Your task to perform on an android device: Open Reddit.com Image 0: 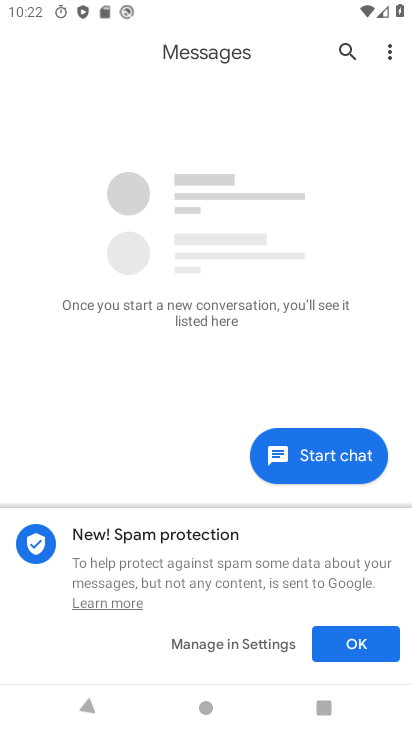
Step 0: press home button
Your task to perform on an android device: Open Reddit.com Image 1: 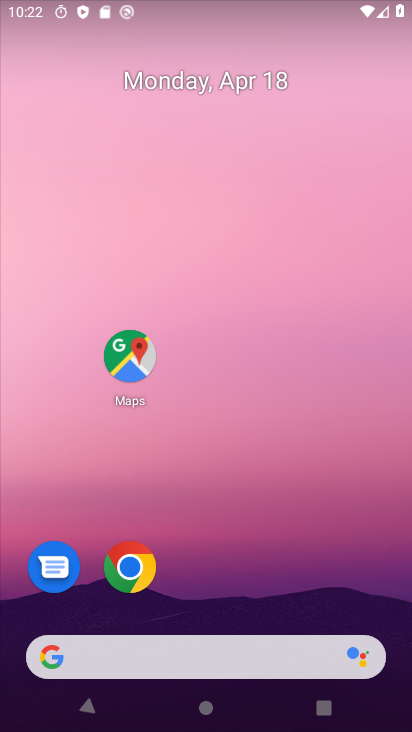
Step 1: drag from (190, 677) to (410, 157)
Your task to perform on an android device: Open Reddit.com Image 2: 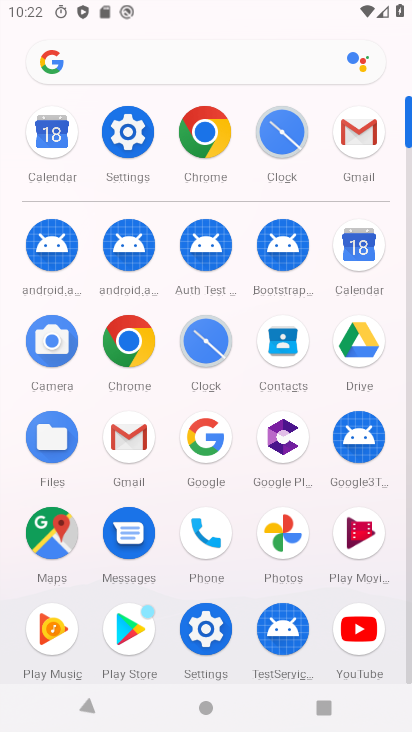
Step 2: click (195, 153)
Your task to perform on an android device: Open Reddit.com Image 3: 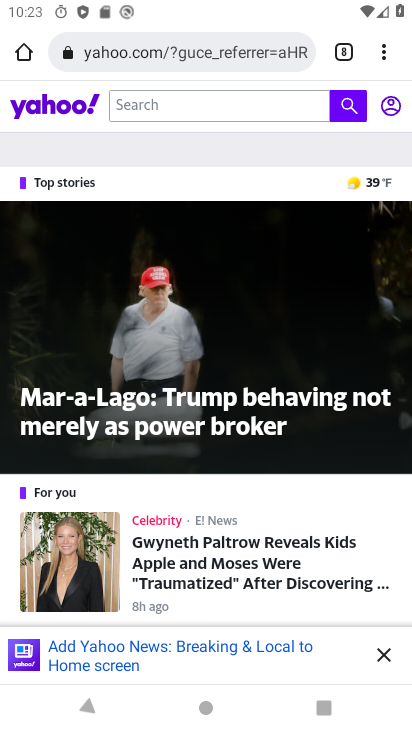
Step 3: click (211, 47)
Your task to perform on an android device: Open Reddit.com Image 4: 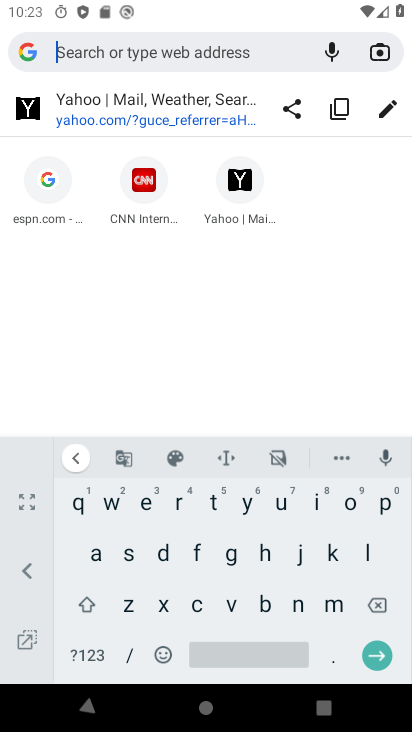
Step 4: click (27, 502)
Your task to perform on an android device: Open Reddit.com Image 5: 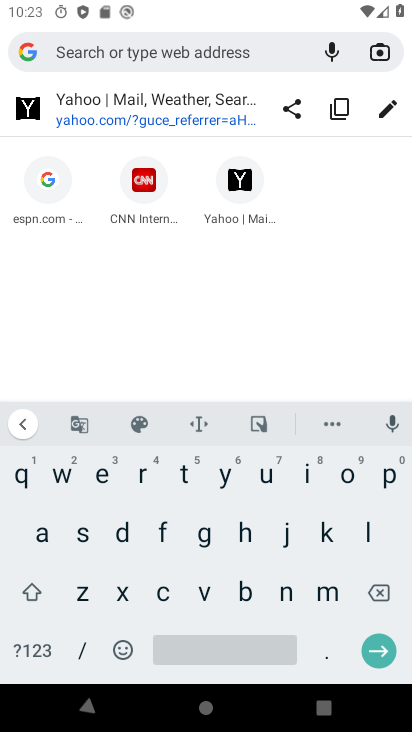
Step 5: click (132, 472)
Your task to perform on an android device: Open Reddit.com Image 6: 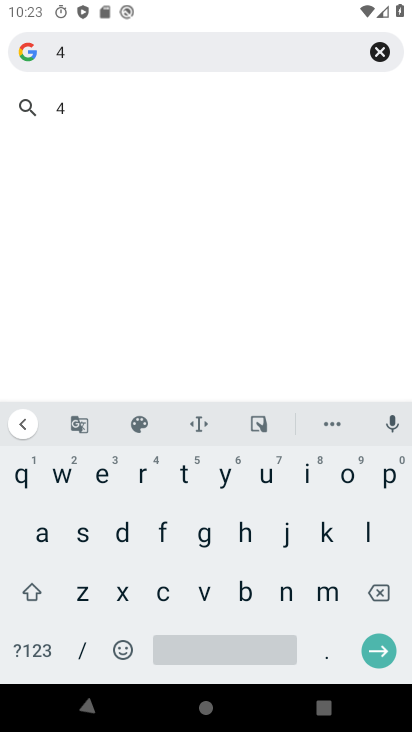
Step 6: click (103, 482)
Your task to perform on an android device: Open Reddit.com Image 7: 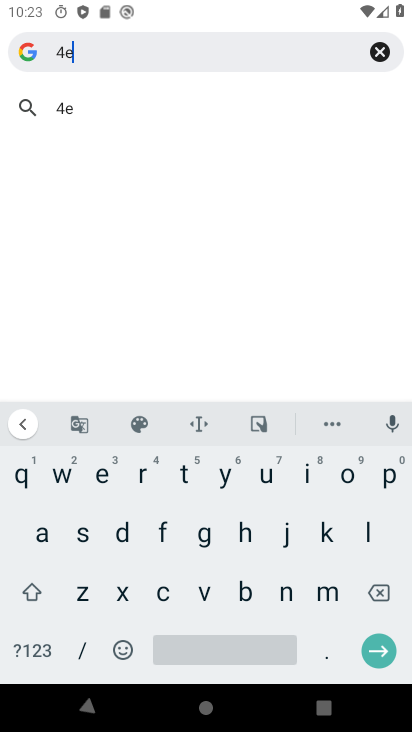
Step 7: click (374, 601)
Your task to perform on an android device: Open Reddit.com Image 8: 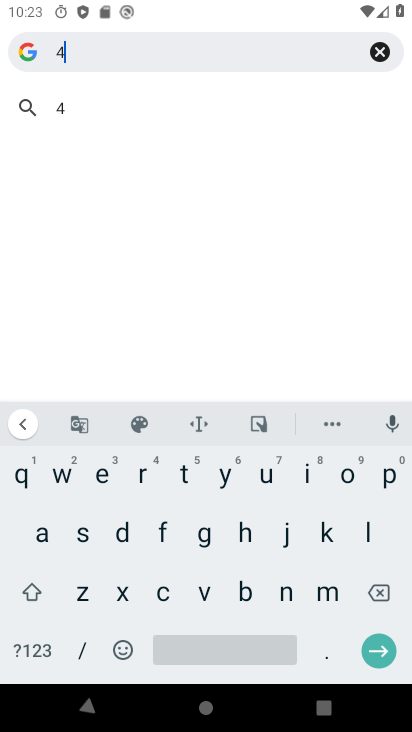
Step 8: click (374, 594)
Your task to perform on an android device: Open Reddit.com Image 9: 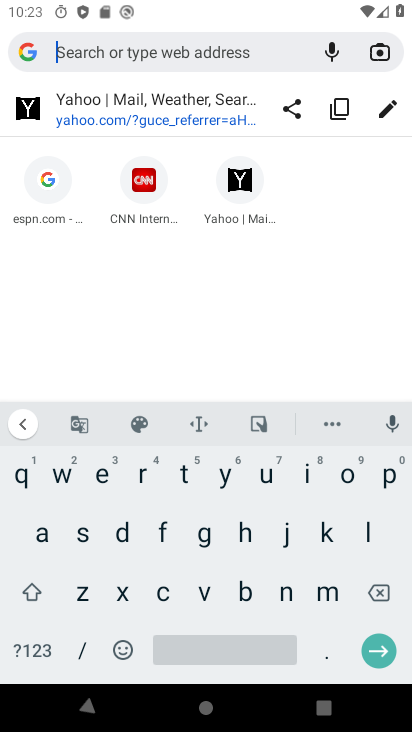
Step 9: click (140, 481)
Your task to perform on an android device: Open Reddit.com Image 10: 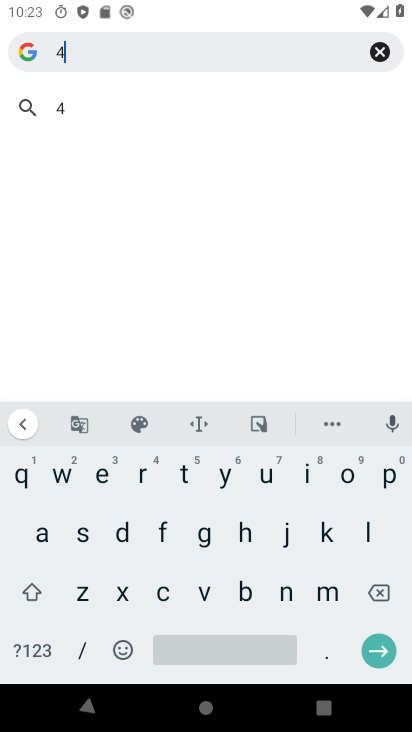
Step 10: click (374, 593)
Your task to perform on an android device: Open Reddit.com Image 11: 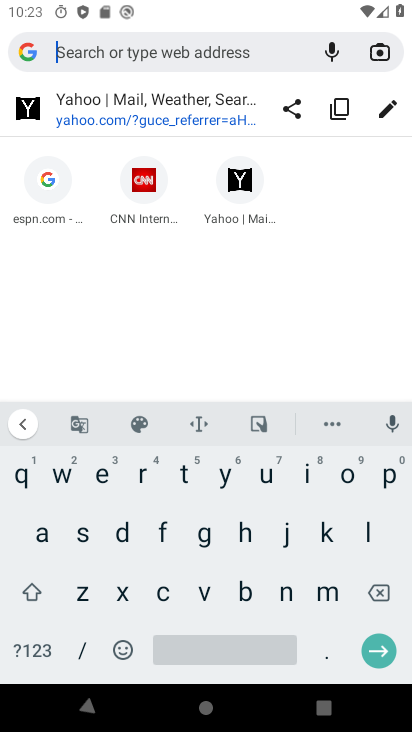
Step 11: click (147, 475)
Your task to perform on an android device: Open Reddit.com Image 12: 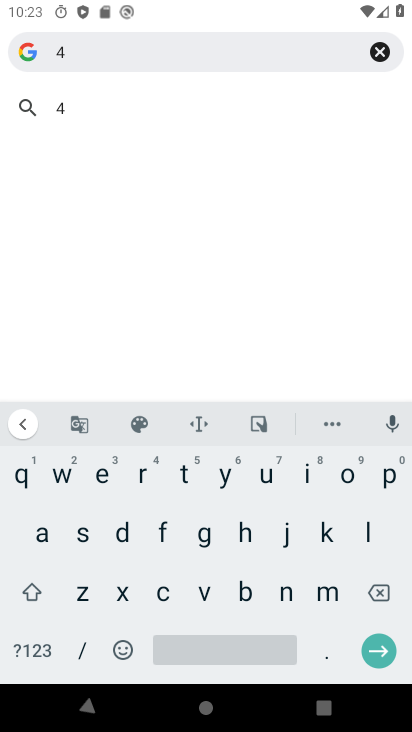
Step 12: click (382, 593)
Your task to perform on an android device: Open Reddit.com Image 13: 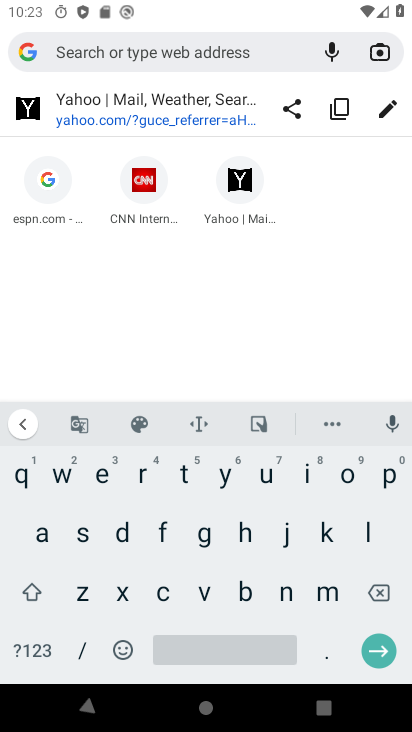
Step 13: click (147, 477)
Your task to perform on an android device: Open Reddit.com Image 14: 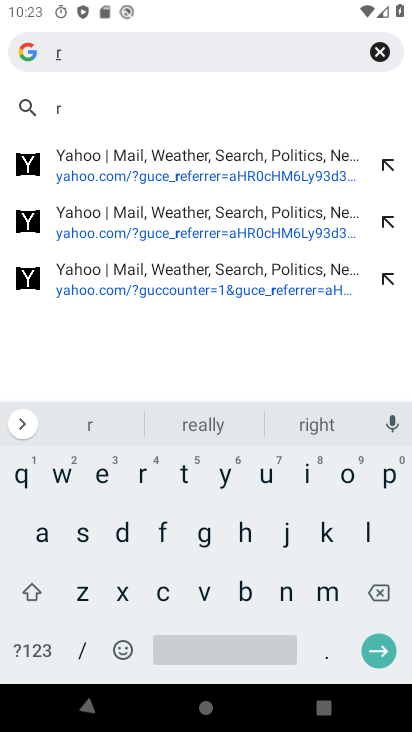
Step 14: click (100, 473)
Your task to perform on an android device: Open Reddit.com Image 15: 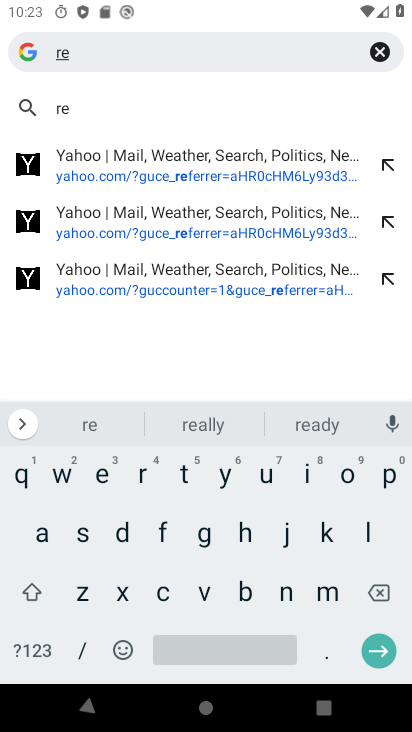
Step 15: click (126, 530)
Your task to perform on an android device: Open Reddit.com Image 16: 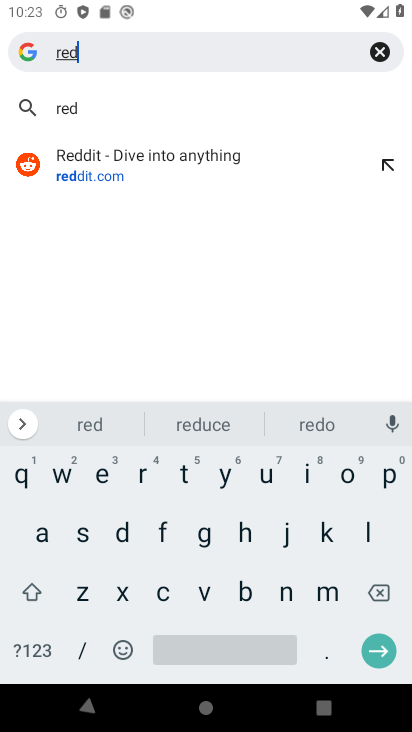
Step 16: click (151, 152)
Your task to perform on an android device: Open Reddit.com Image 17: 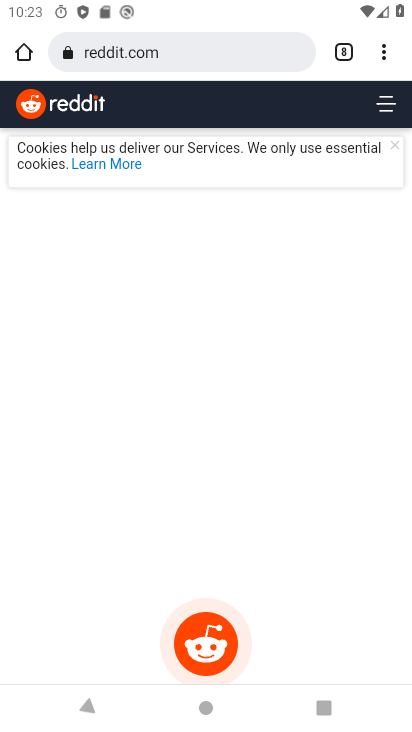
Step 17: task complete